Your task to perform on an android device: choose inbox layout in the gmail app Image 0: 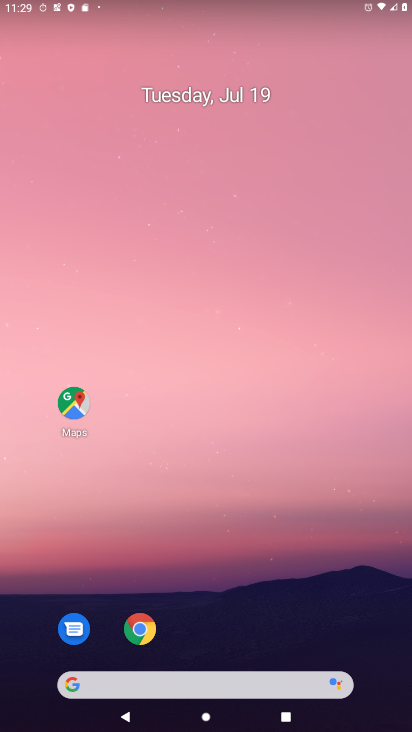
Step 0: drag from (225, 582) to (185, 80)
Your task to perform on an android device: choose inbox layout in the gmail app Image 1: 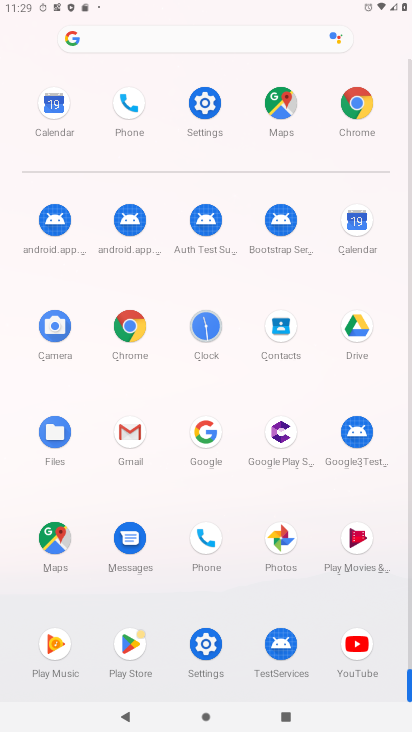
Step 1: click (137, 426)
Your task to perform on an android device: choose inbox layout in the gmail app Image 2: 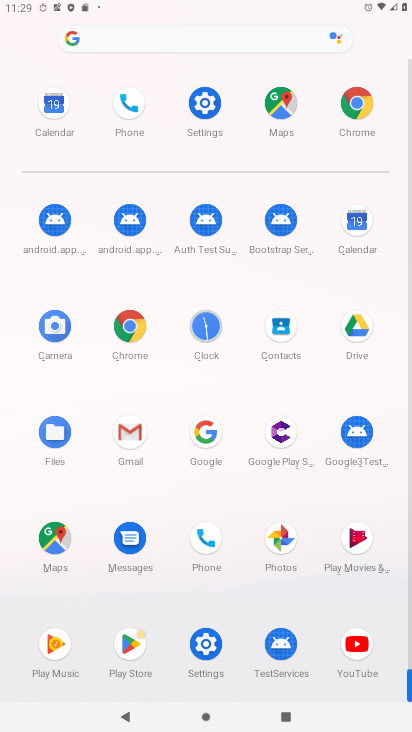
Step 2: click (137, 426)
Your task to perform on an android device: choose inbox layout in the gmail app Image 3: 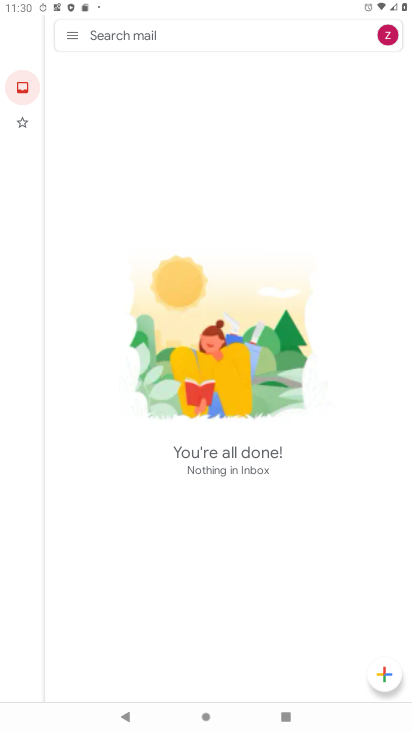
Step 3: click (72, 40)
Your task to perform on an android device: choose inbox layout in the gmail app Image 4: 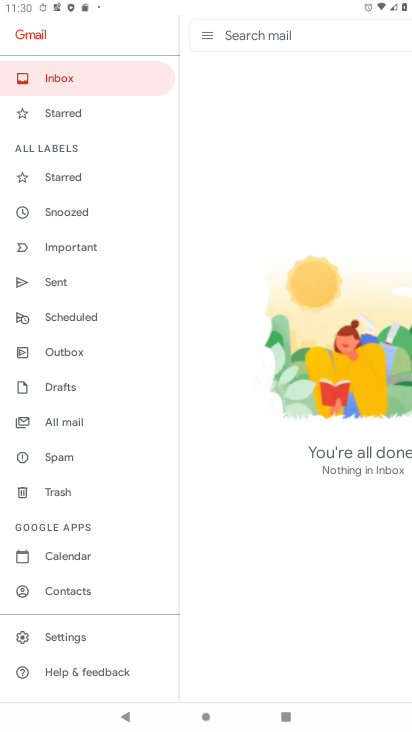
Step 4: click (76, 636)
Your task to perform on an android device: choose inbox layout in the gmail app Image 5: 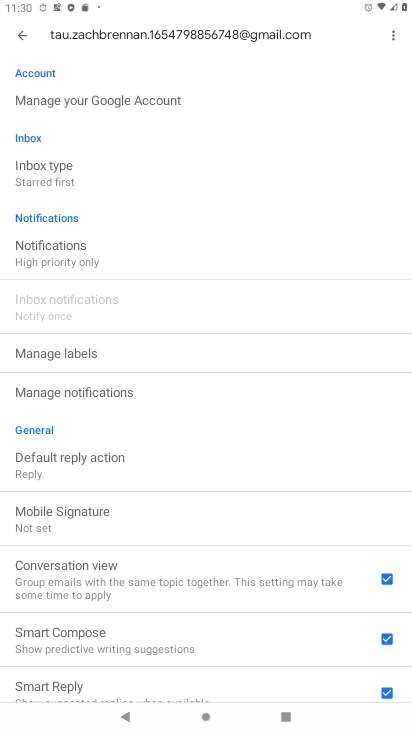
Step 5: click (43, 169)
Your task to perform on an android device: choose inbox layout in the gmail app Image 6: 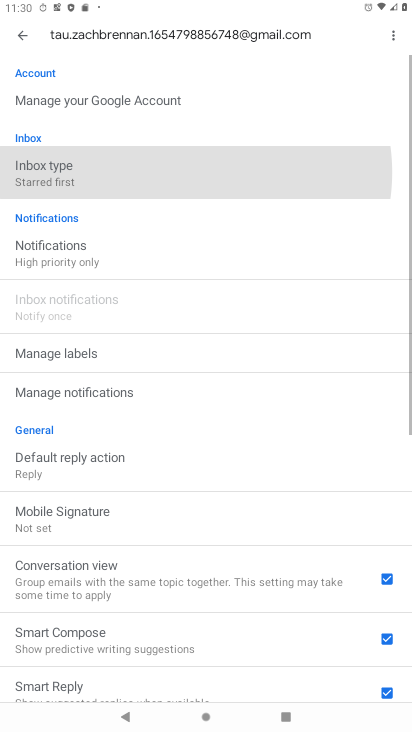
Step 6: click (43, 168)
Your task to perform on an android device: choose inbox layout in the gmail app Image 7: 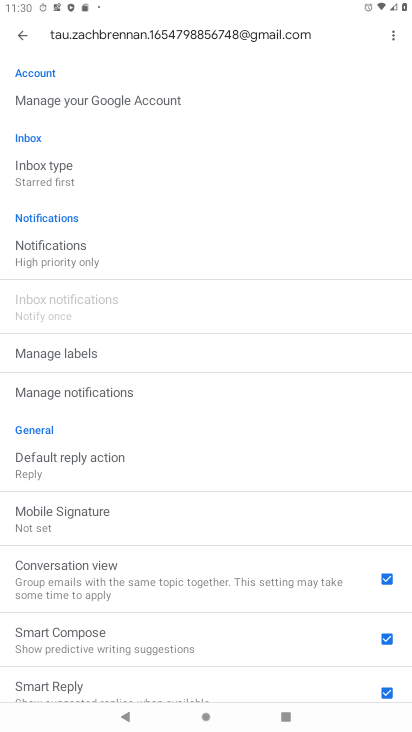
Step 7: click (49, 165)
Your task to perform on an android device: choose inbox layout in the gmail app Image 8: 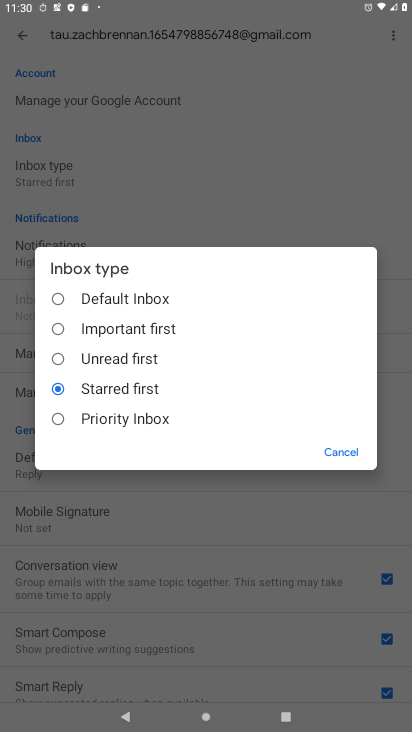
Step 8: click (58, 299)
Your task to perform on an android device: choose inbox layout in the gmail app Image 9: 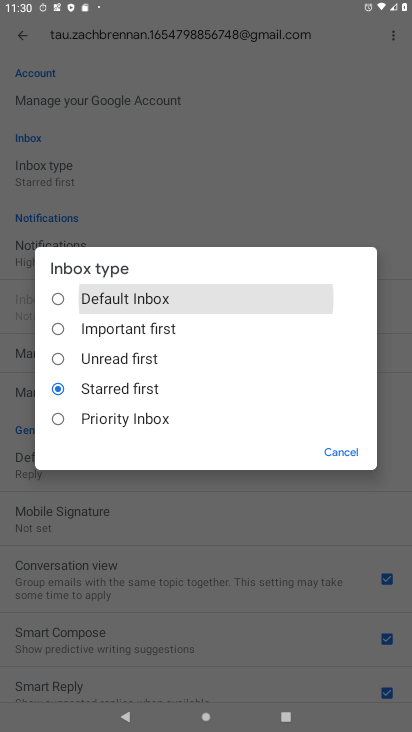
Step 9: click (58, 299)
Your task to perform on an android device: choose inbox layout in the gmail app Image 10: 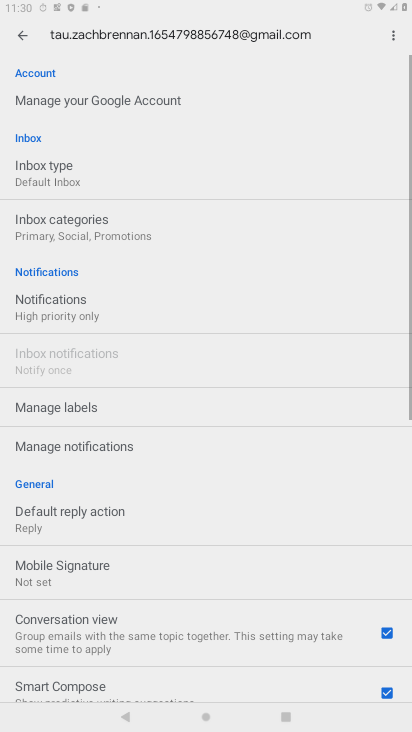
Step 10: click (58, 299)
Your task to perform on an android device: choose inbox layout in the gmail app Image 11: 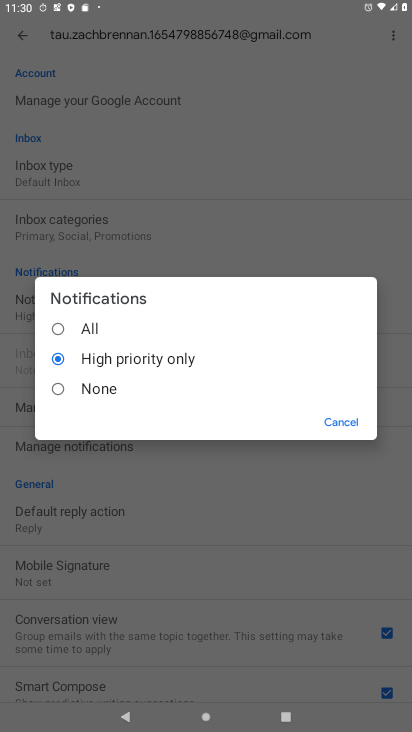
Step 11: click (61, 324)
Your task to perform on an android device: choose inbox layout in the gmail app Image 12: 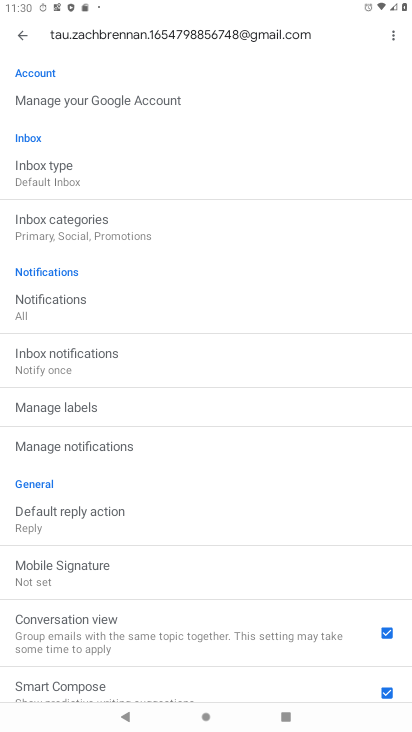
Step 12: task complete